Your task to perform on an android device: turn on showing notifications on the lock screen Image 0: 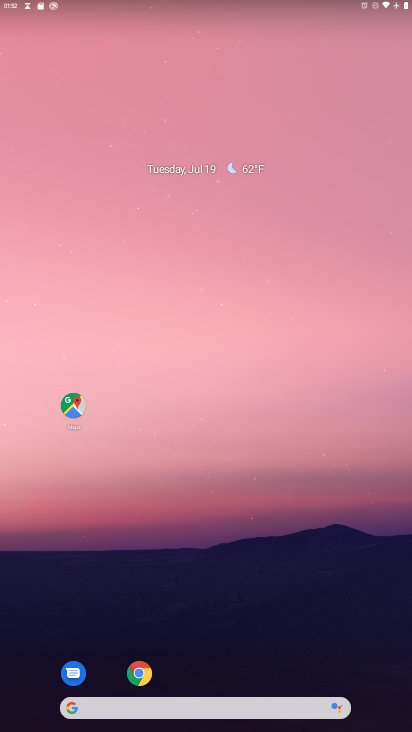
Step 0: drag from (119, 691) to (183, 200)
Your task to perform on an android device: turn on showing notifications on the lock screen Image 1: 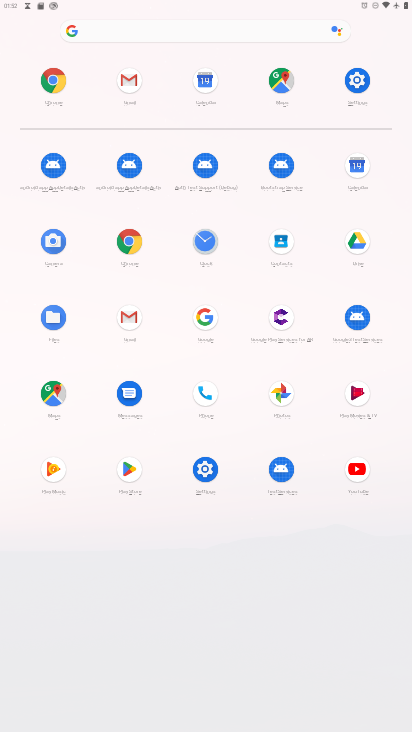
Step 1: click (358, 85)
Your task to perform on an android device: turn on showing notifications on the lock screen Image 2: 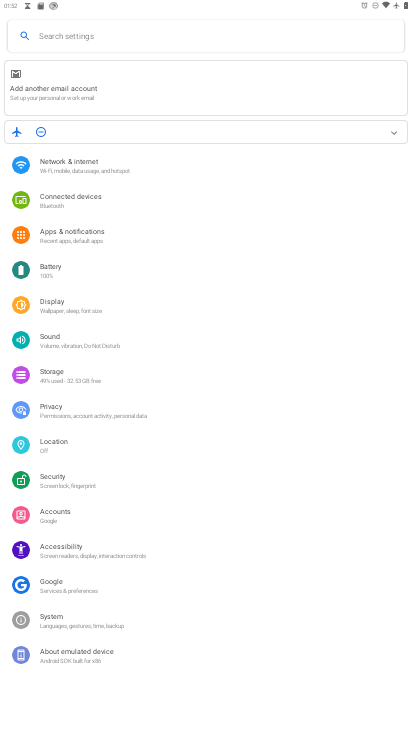
Step 2: click (113, 239)
Your task to perform on an android device: turn on showing notifications on the lock screen Image 3: 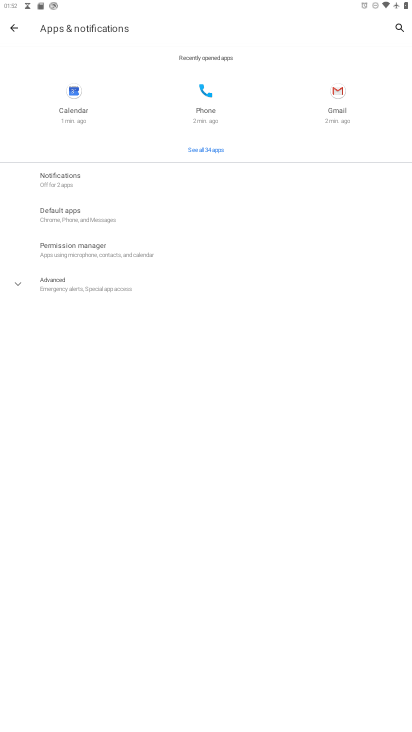
Step 3: click (99, 177)
Your task to perform on an android device: turn on showing notifications on the lock screen Image 4: 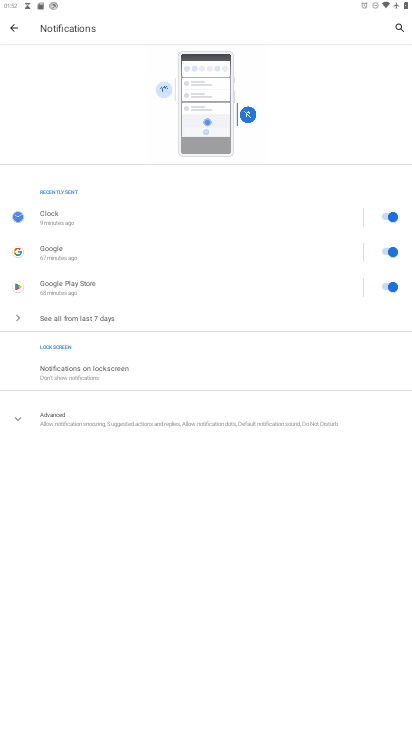
Step 4: click (171, 375)
Your task to perform on an android device: turn on showing notifications on the lock screen Image 5: 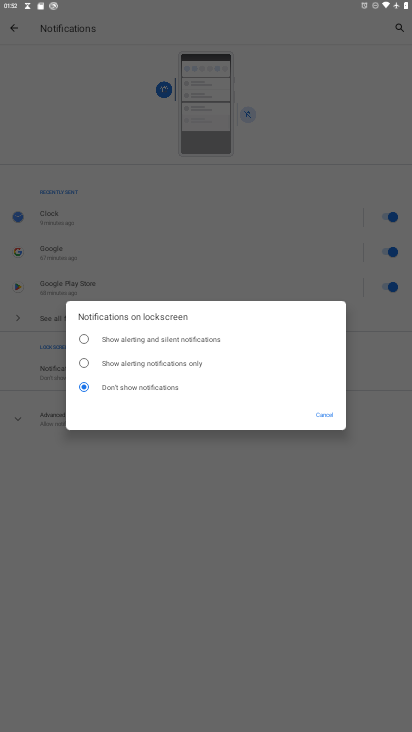
Step 5: click (129, 331)
Your task to perform on an android device: turn on showing notifications on the lock screen Image 6: 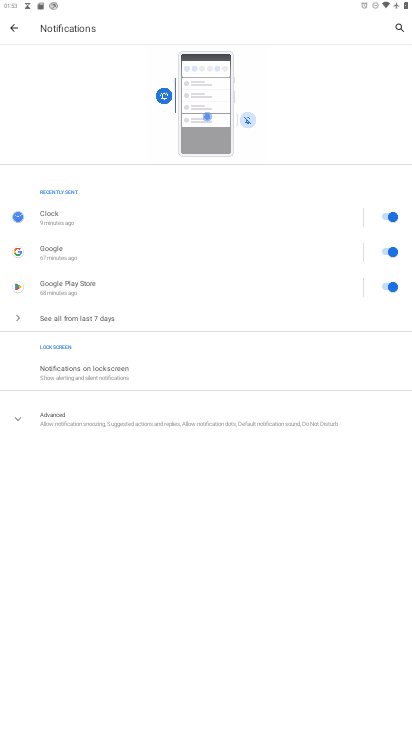
Step 6: click (158, 408)
Your task to perform on an android device: turn on showing notifications on the lock screen Image 7: 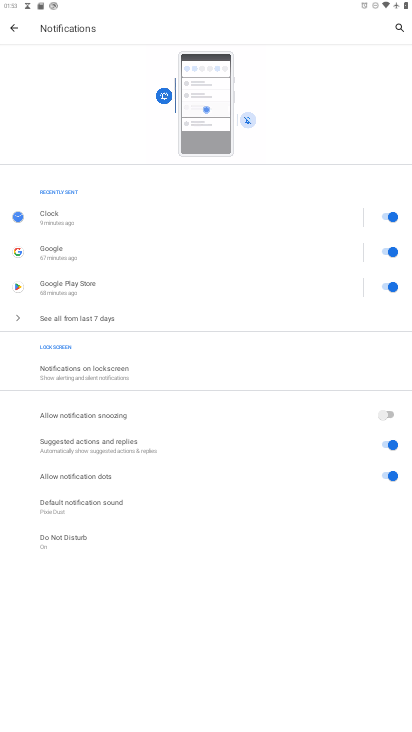
Step 7: click (156, 380)
Your task to perform on an android device: turn on showing notifications on the lock screen Image 8: 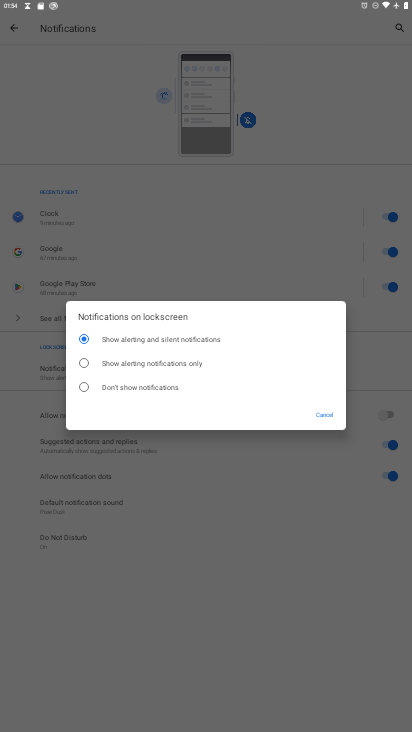
Step 8: task complete